Your task to perform on an android device: Open Google Chrome Image 0: 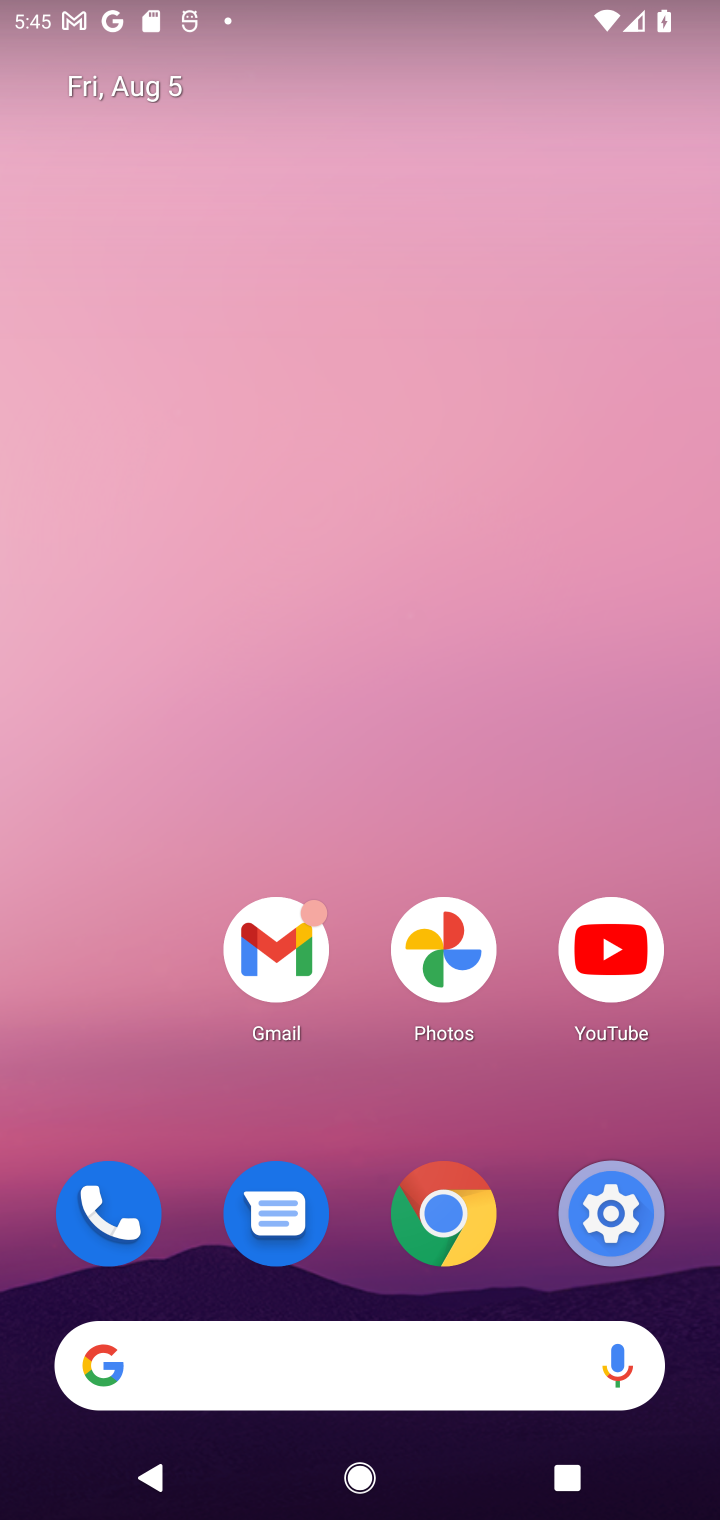
Step 0: click (448, 1223)
Your task to perform on an android device: Open Google Chrome Image 1: 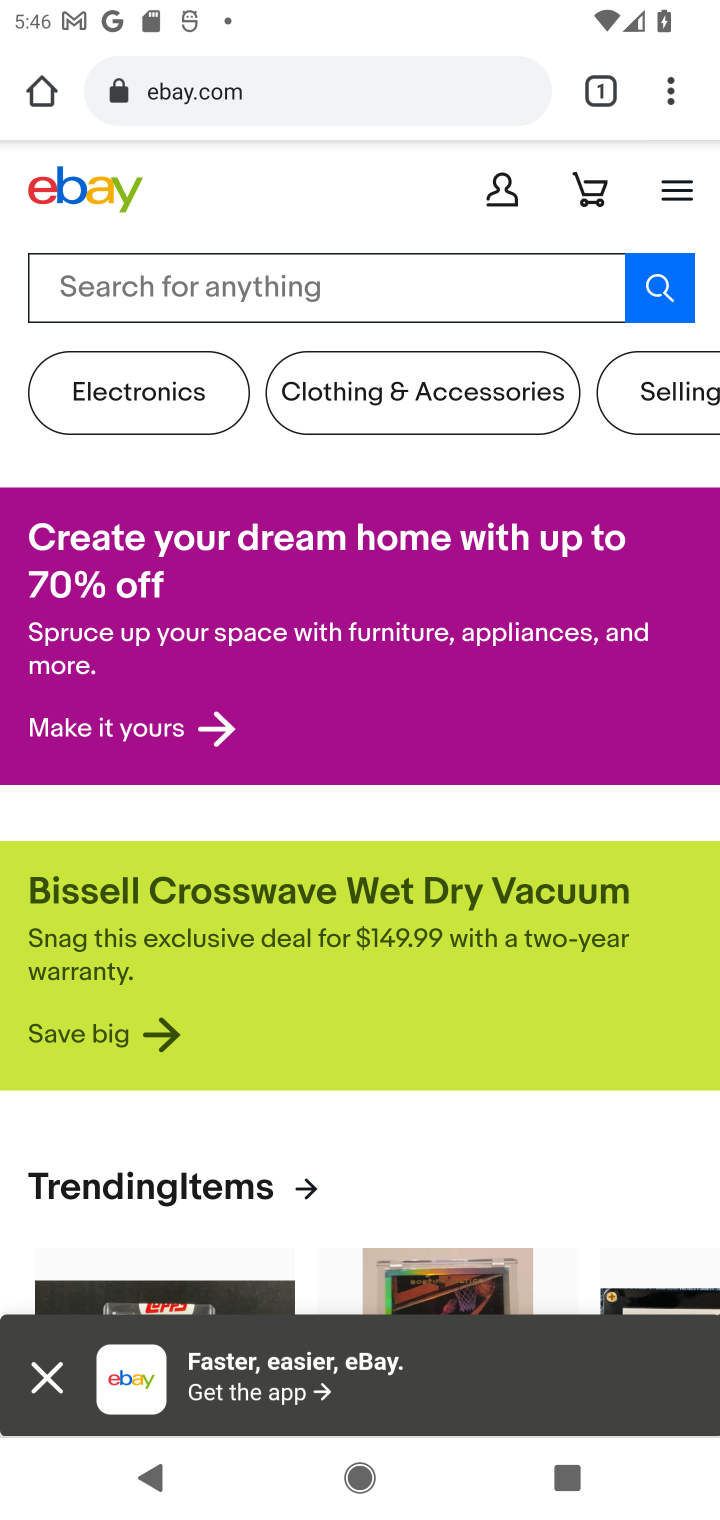
Step 1: task complete